Your task to perform on an android device: Go to privacy settings Image 0: 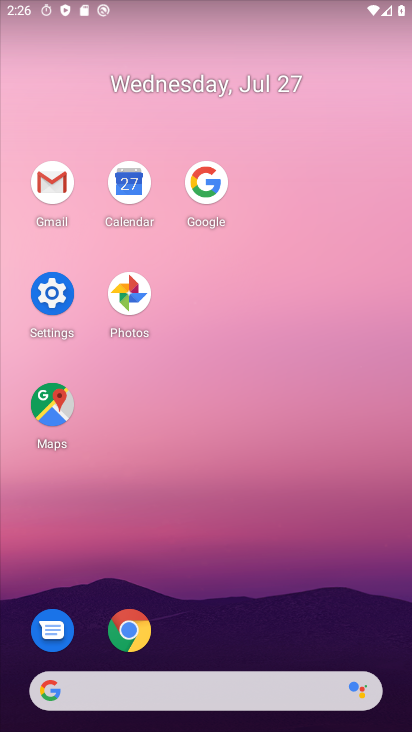
Step 0: click (58, 282)
Your task to perform on an android device: Go to privacy settings Image 1: 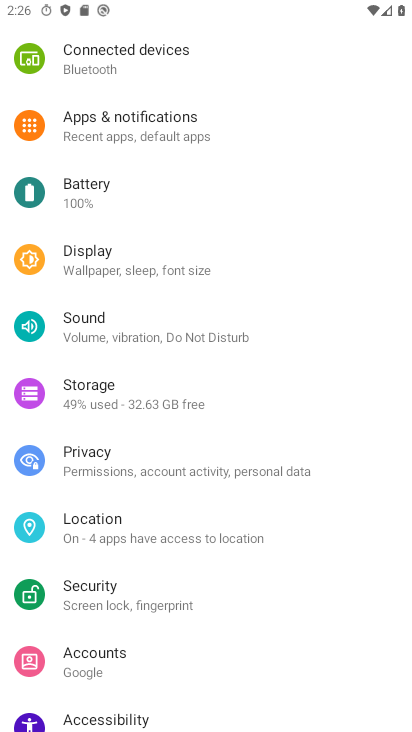
Step 1: click (202, 464)
Your task to perform on an android device: Go to privacy settings Image 2: 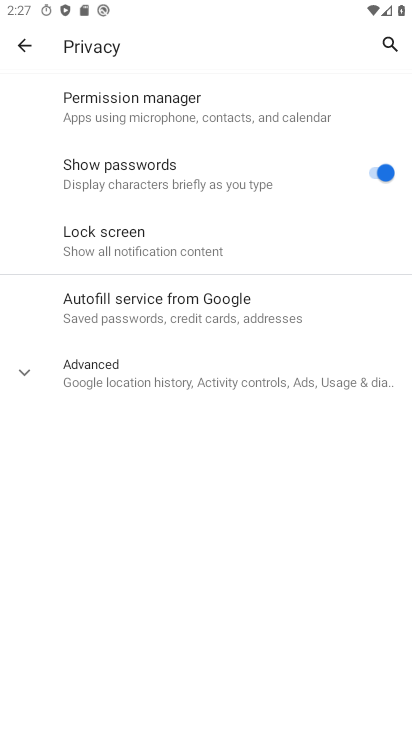
Step 2: task complete